Your task to perform on an android device: Open accessibility settings Image 0: 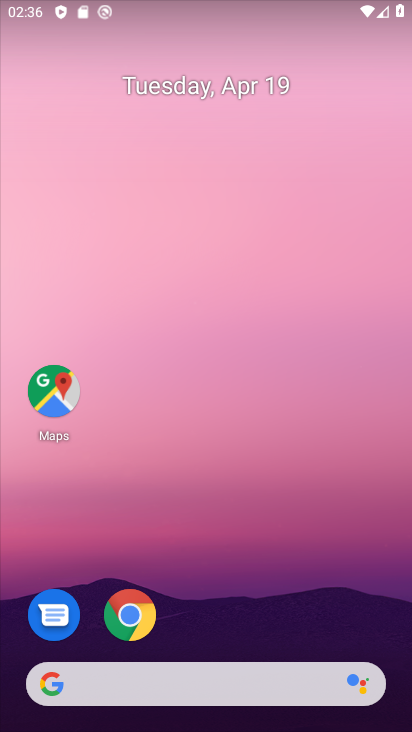
Step 0: drag from (244, 625) to (272, 314)
Your task to perform on an android device: Open accessibility settings Image 1: 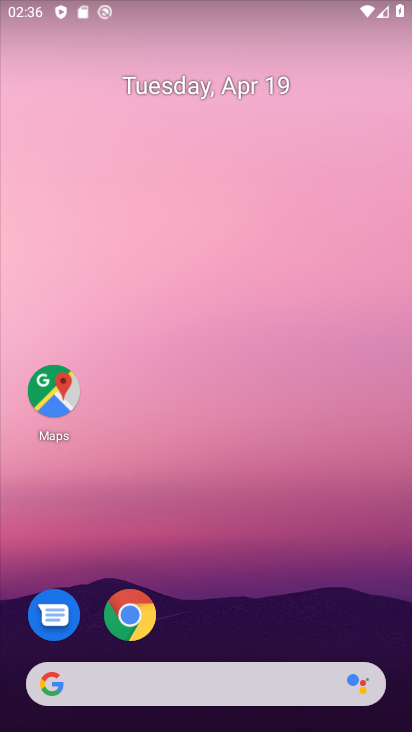
Step 1: drag from (240, 534) to (271, 234)
Your task to perform on an android device: Open accessibility settings Image 2: 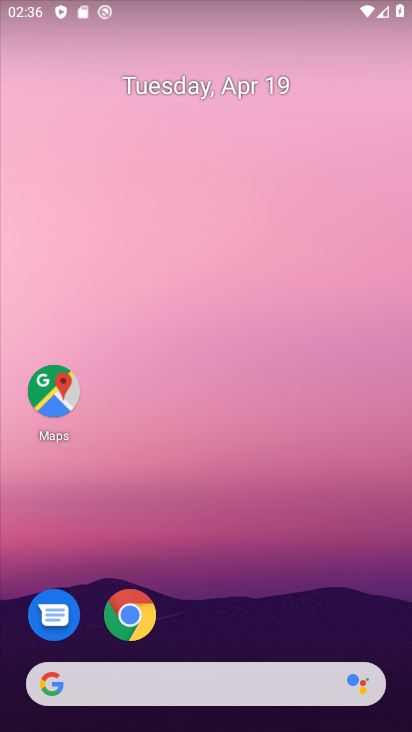
Step 2: drag from (241, 549) to (263, 199)
Your task to perform on an android device: Open accessibility settings Image 3: 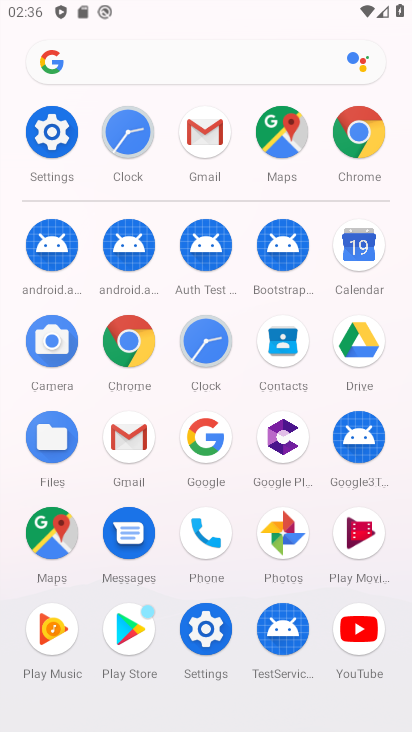
Step 3: click (48, 128)
Your task to perform on an android device: Open accessibility settings Image 4: 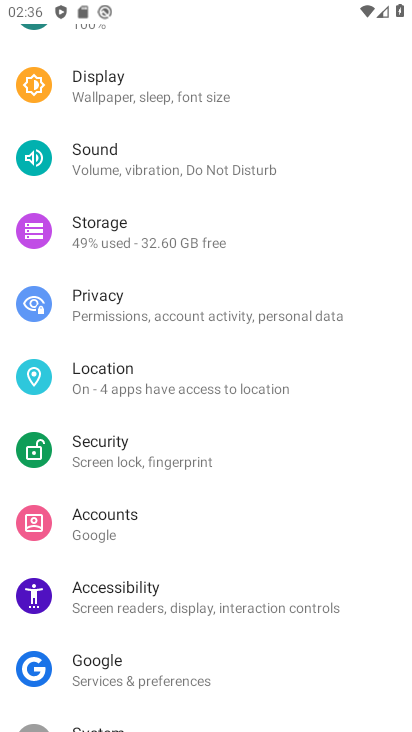
Step 4: click (119, 592)
Your task to perform on an android device: Open accessibility settings Image 5: 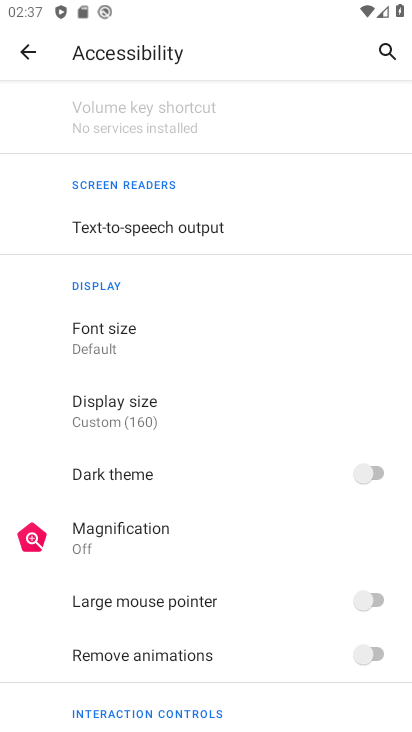
Step 5: task complete